Your task to perform on an android device: turn off location history Image 0: 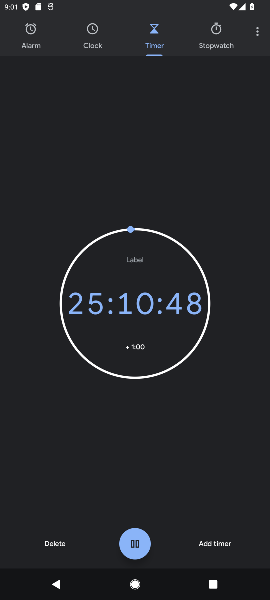
Step 0: press home button
Your task to perform on an android device: turn off location history Image 1: 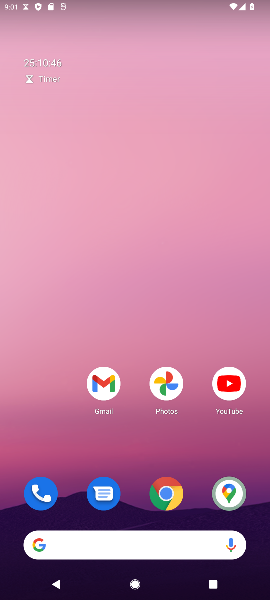
Step 1: drag from (59, 430) to (167, 79)
Your task to perform on an android device: turn off location history Image 2: 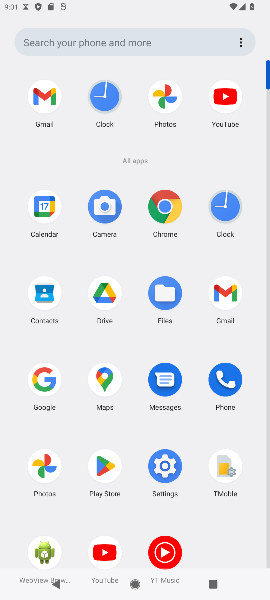
Step 2: click (162, 468)
Your task to perform on an android device: turn off location history Image 3: 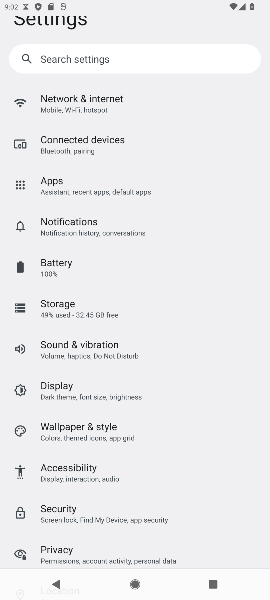
Step 3: drag from (151, 428) to (189, 185)
Your task to perform on an android device: turn off location history Image 4: 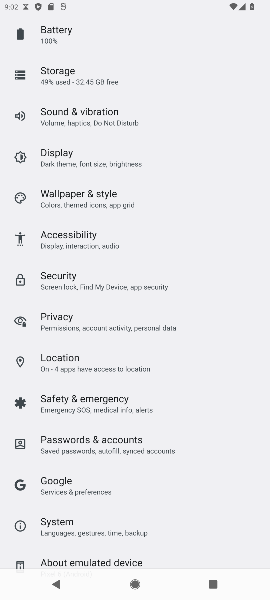
Step 4: click (80, 364)
Your task to perform on an android device: turn off location history Image 5: 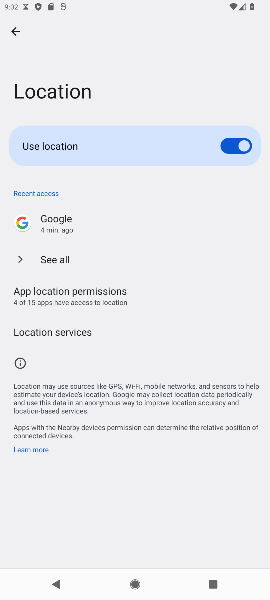
Step 5: task complete